Your task to perform on an android device: delete location history Image 0: 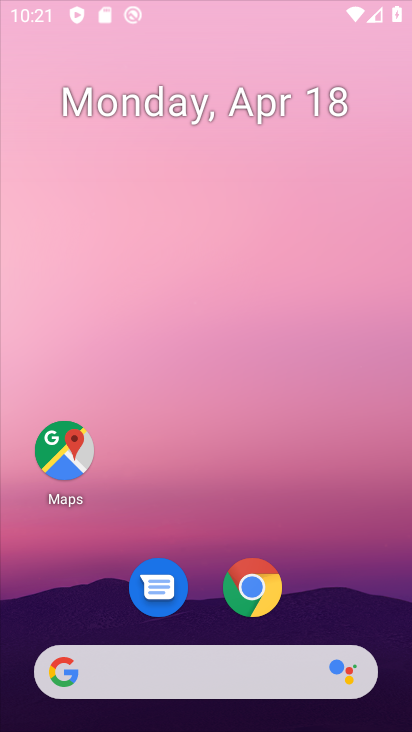
Step 0: click (342, 109)
Your task to perform on an android device: delete location history Image 1: 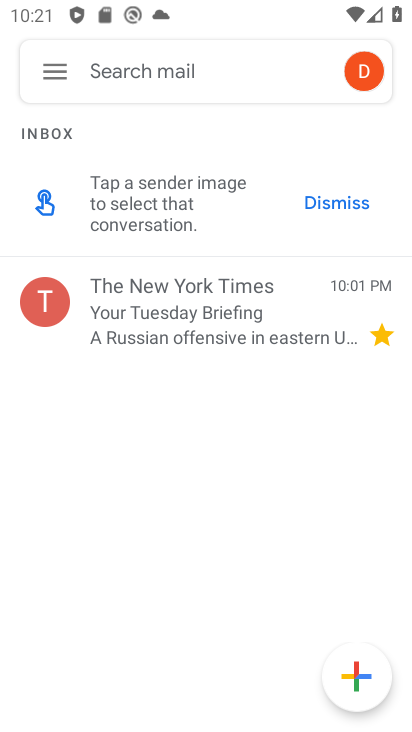
Step 1: press home button
Your task to perform on an android device: delete location history Image 2: 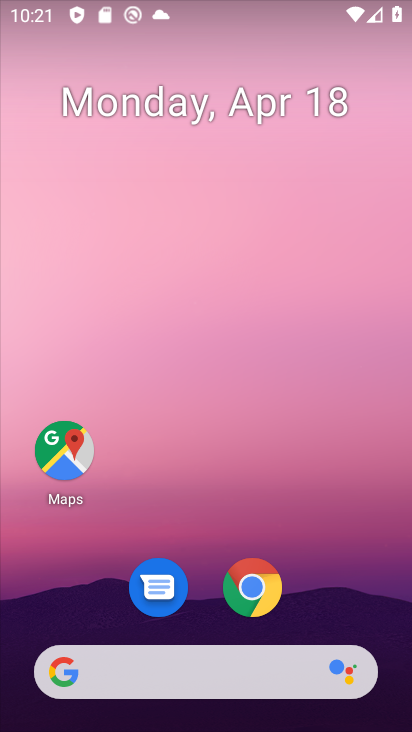
Step 2: drag from (291, 602) to (344, 190)
Your task to perform on an android device: delete location history Image 3: 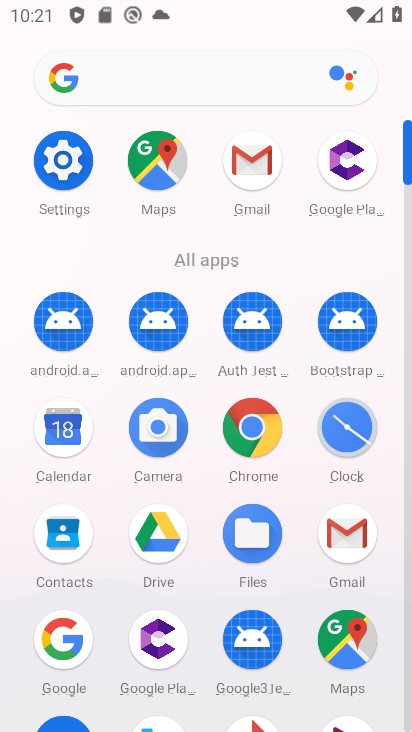
Step 3: click (54, 175)
Your task to perform on an android device: delete location history Image 4: 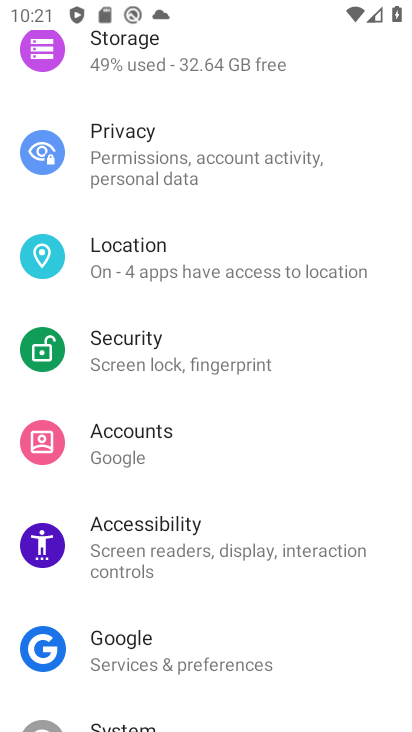
Step 4: drag from (336, 611) to (397, 244)
Your task to perform on an android device: delete location history Image 5: 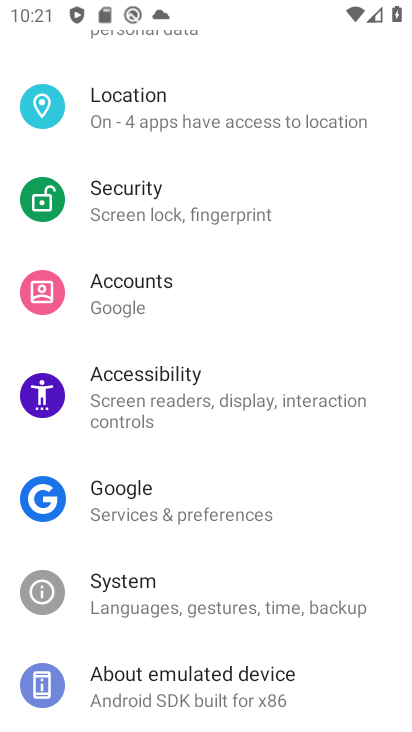
Step 5: drag from (334, 651) to (366, 352)
Your task to perform on an android device: delete location history Image 6: 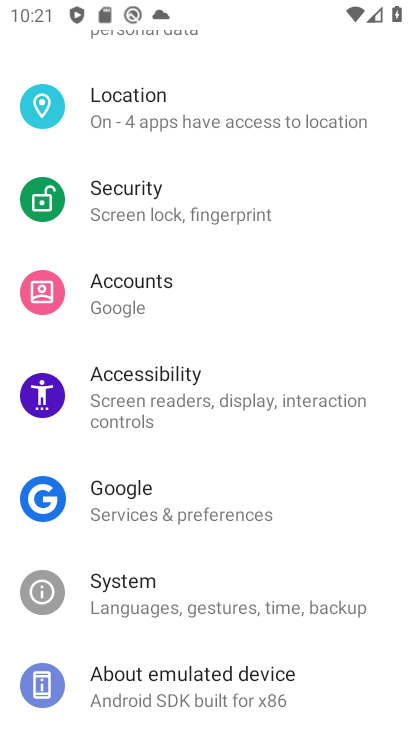
Step 6: drag from (274, 244) to (340, 570)
Your task to perform on an android device: delete location history Image 7: 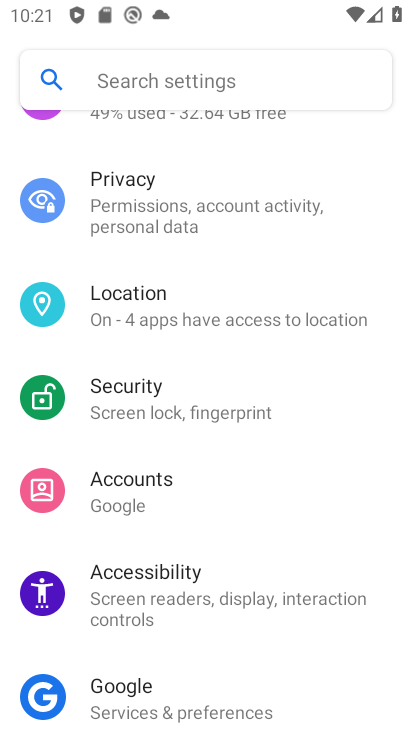
Step 7: click (231, 313)
Your task to perform on an android device: delete location history Image 8: 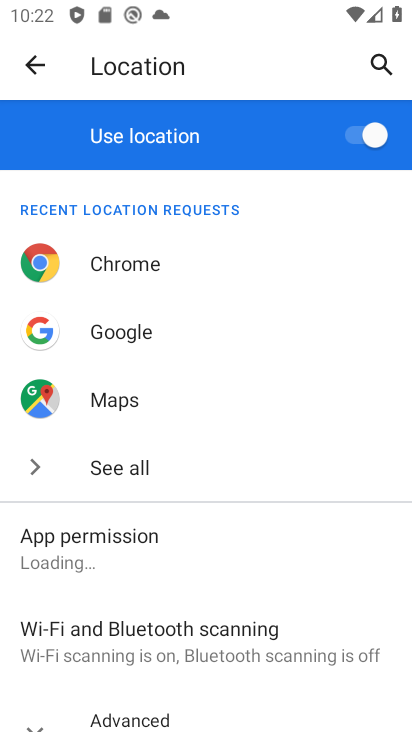
Step 8: drag from (350, 688) to (376, 301)
Your task to perform on an android device: delete location history Image 9: 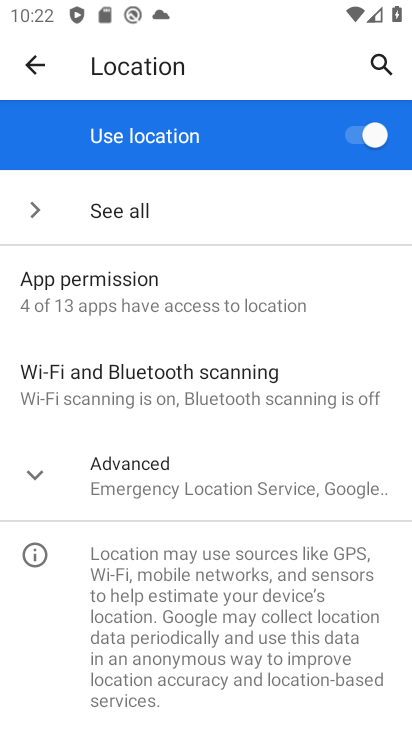
Step 9: click (216, 488)
Your task to perform on an android device: delete location history Image 10: 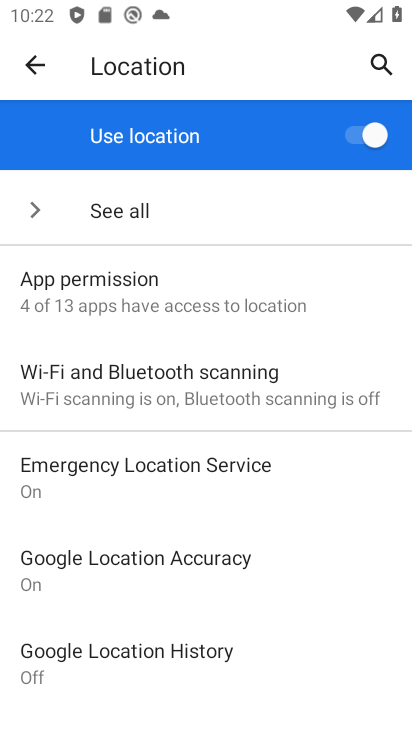
Step 10: drag from (292, 470) to (326, 205)
Your task to perform on an android device: delete location history Image 11: 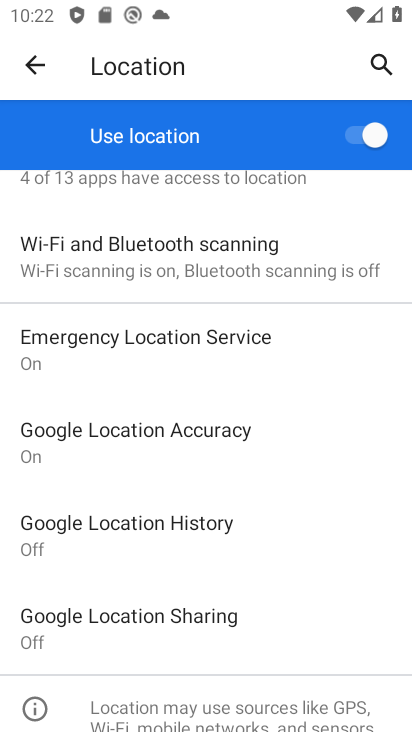
Step 11: click (171, 521)
Your task to perform on an android device: delete location history Image 12: 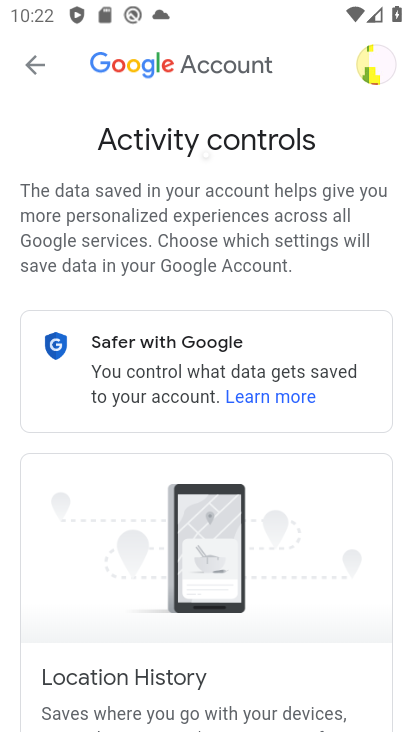
Step 12: drag from (112, 689) to (178, 167)
Your task to perform on an android device: delete location history Image 13: 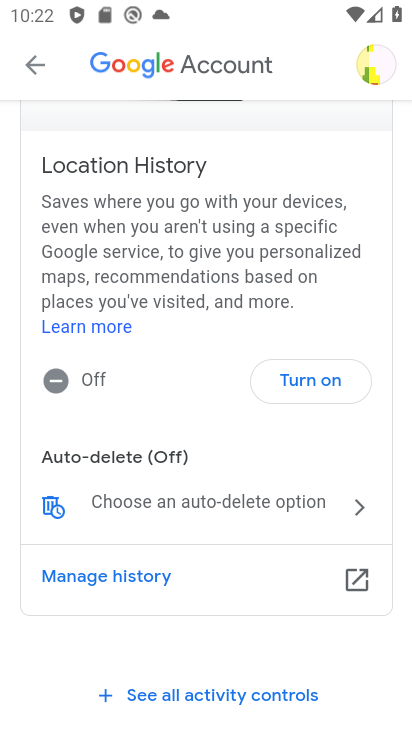
Step 13: click (138, 579)
Your task to perform on an android device: delete location history Image 14: 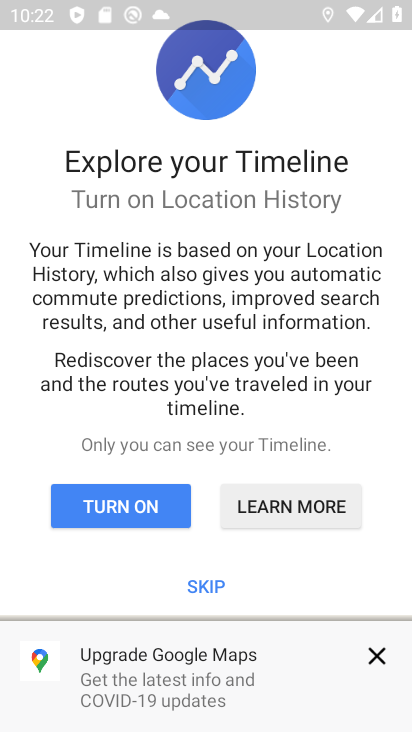
Step 14: click (199, 592)
Your task to perform on an android device: delete location history Image 15: 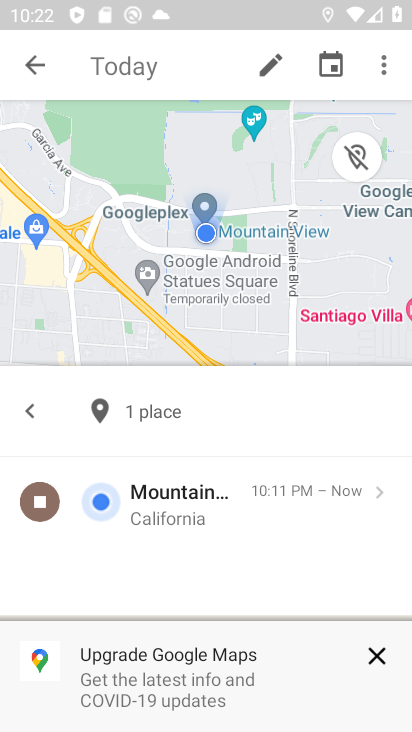
Step 15: click (388, 71)
Your task to perform on an android device: delete location history Image 16: 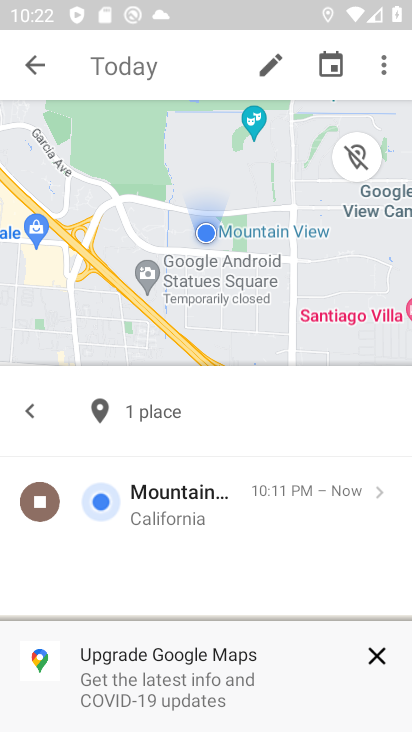
Step 16: click (387, 74)
Your task to perform on an android device: delete location history Image 17: 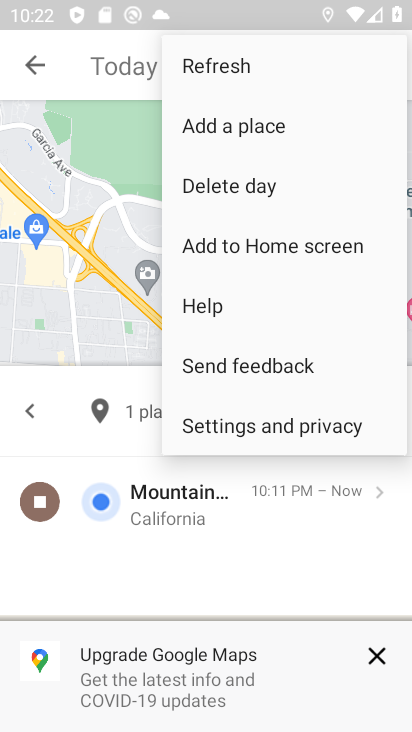
Step 17: click (223, 414)
Your task to perform on an android device: delete location history Image 18: 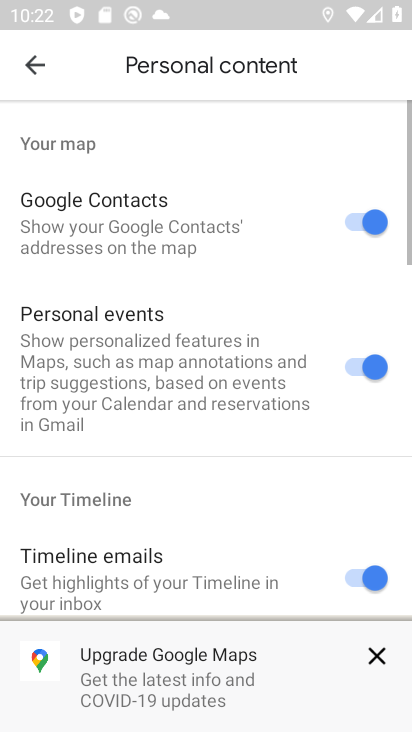
Step 18: drag from (196, 590) to (246, 151)
Your task to perform on an android device: delete location history Image 19: 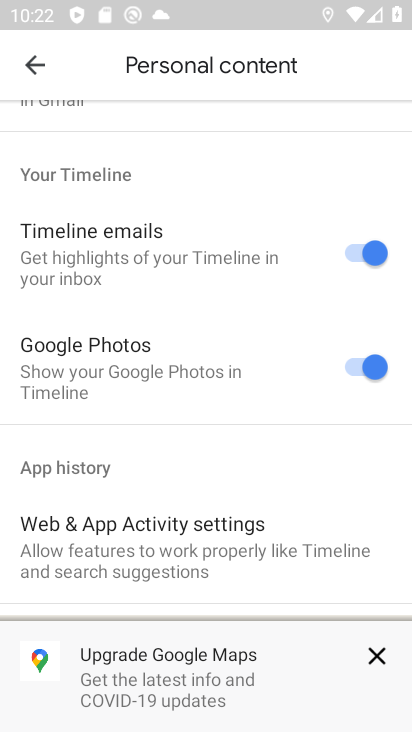
Step 19: drag from (207, 563) to (222, 183)
Your task to perform on an android device: delete location history Image 20: 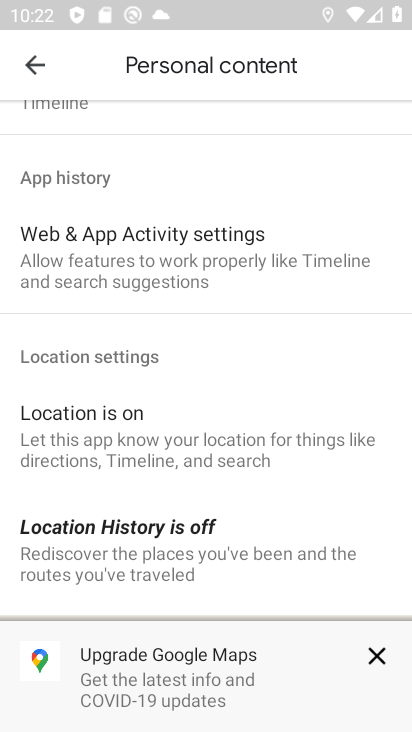
Step 20: drag from (246, 561) to (290, 172)
Your task to perform on an android device: delete location history Image 21: 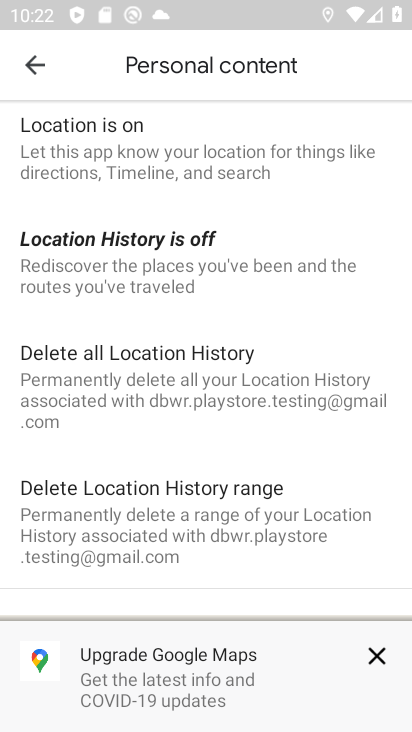
Step 21: click (132, 405)
Your task to perform on an android device: delete location history Image 22: 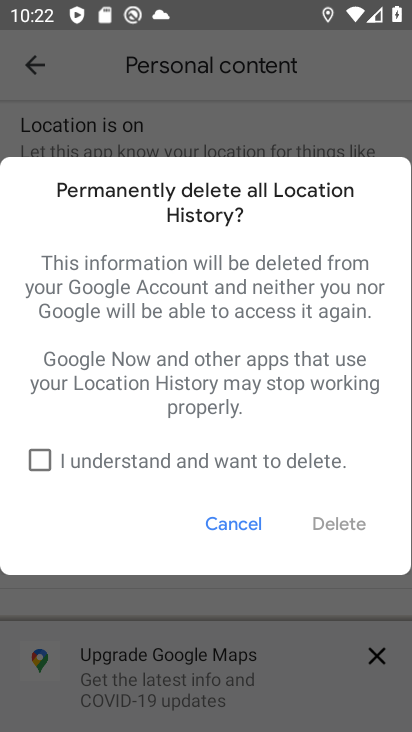
Step 22: click (38, 457)
Your task to perform on an android device: delete location history Image 23: 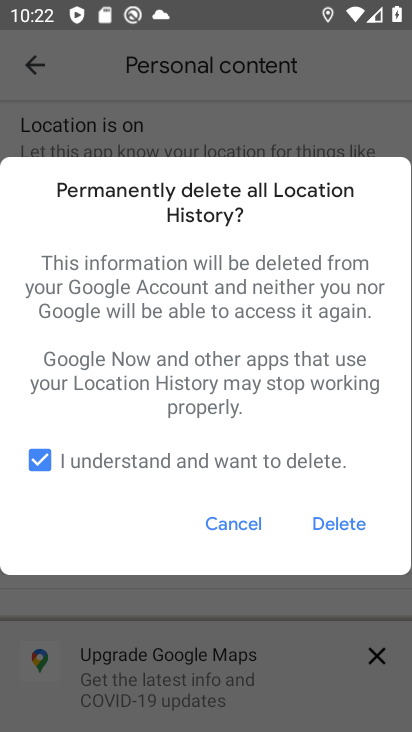
Step 23: click (344, 526)
Your task to perform on an android device: delete location history Image 24: 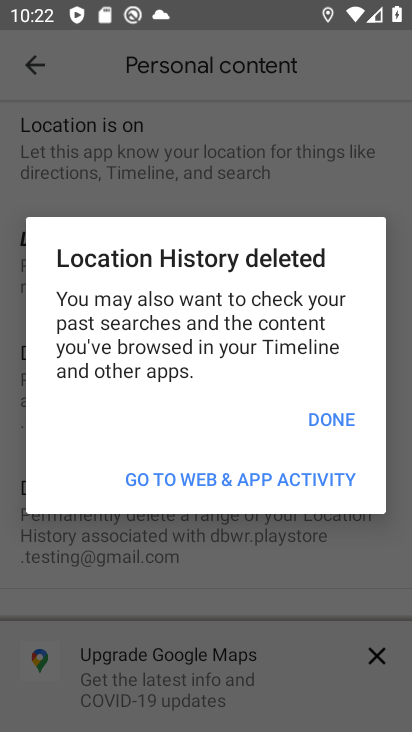
Step 24: click (333, 420)
Your task to perform on an android device: delete location history Image 25: 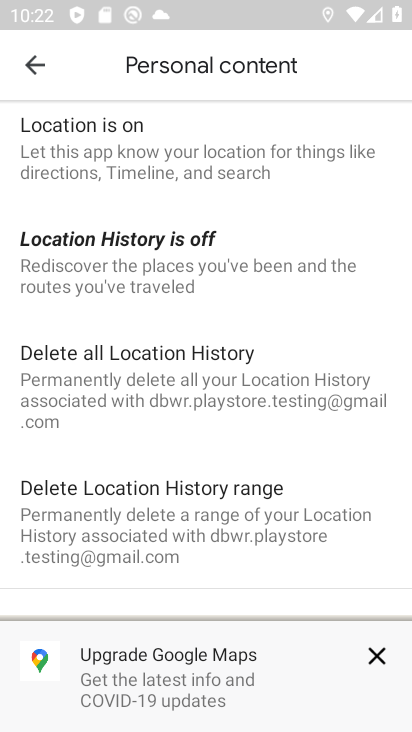
Step 25: task complete